Your task to perform on an android device: visit the assistant section in the google photos Image 0: 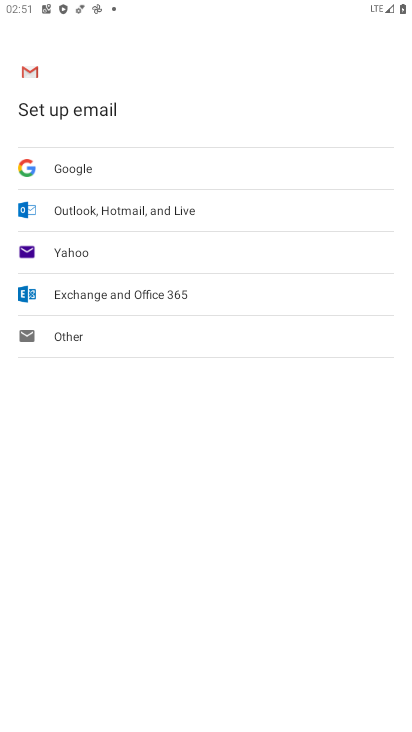
Step 0: press home button
Your task to perform on an android device: visit the assistant section in the google photos Image 1: 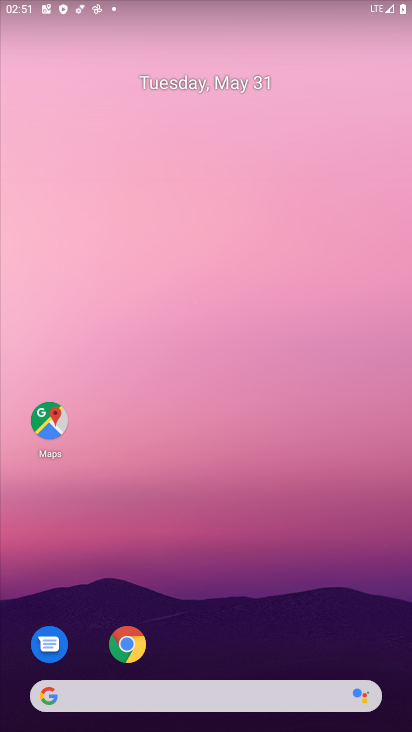
Step 1: drag from (319, 556) to (221, 71)
Your task to perform on an android device: visit the assistant section in the google photos Image 2: 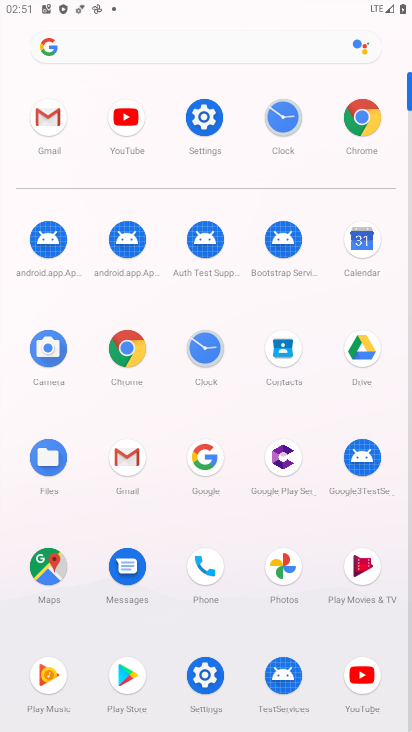
Step 2: click (285, 559)
Your task to perform on an android device: visit the assistant section in the google photos Image 3: 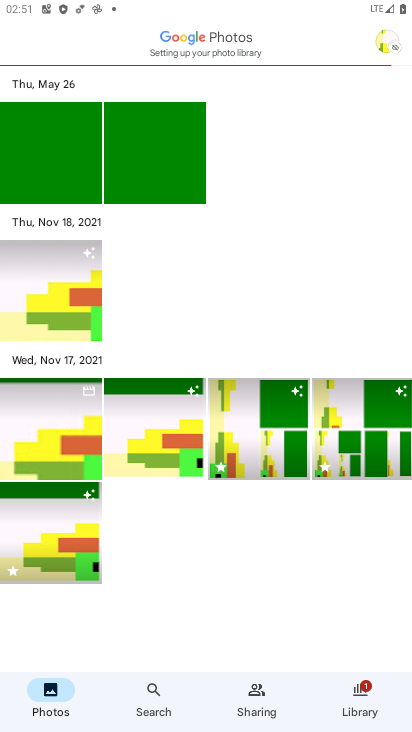
Step 3: click (373, 708)
Your task to perform on an android device: visit the assistant section in the google photos Image 4: 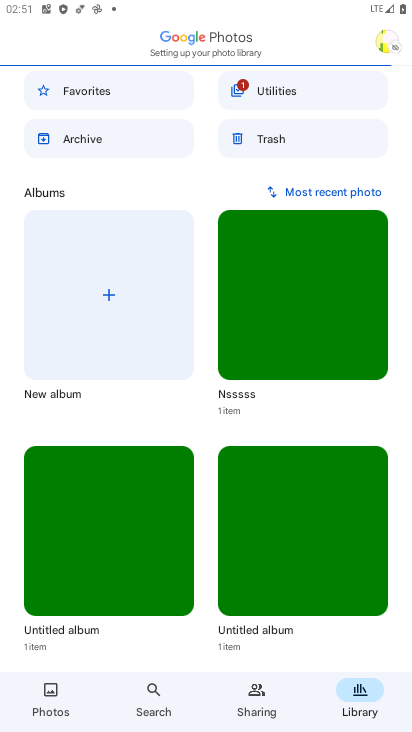
Step 4: task complete